Your task to perform on an android device: change text size in settings app Image 0: 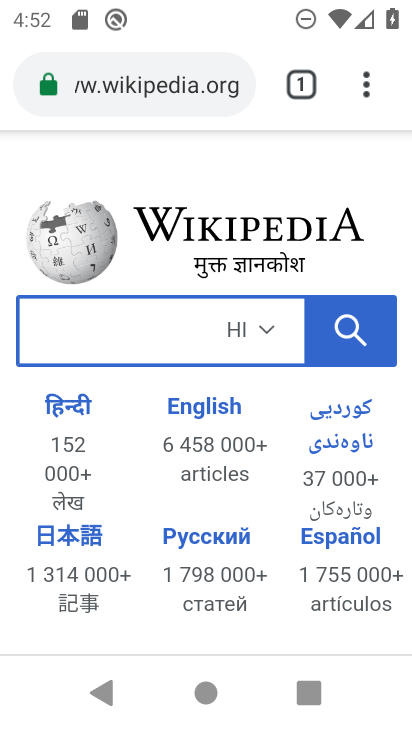
Step 0: press home button
Your task to perform on an android device: change text size in settings app Image 1: 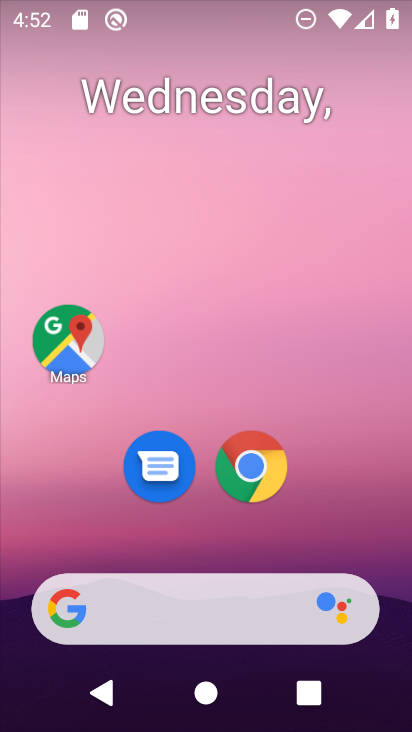
Step 1: drag from (391, 584) to (349, 144)
Your task to perform on an android device: change text size in settings app Image 2: 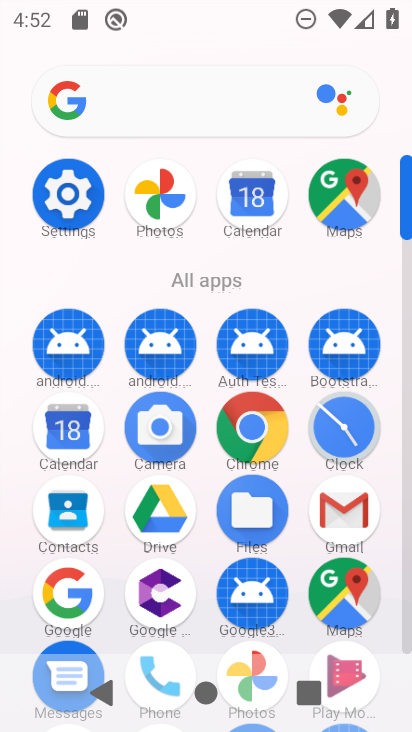
Step 2: click (406, 642)
Your task to perform on an android device: change text size in settings app Image 3: 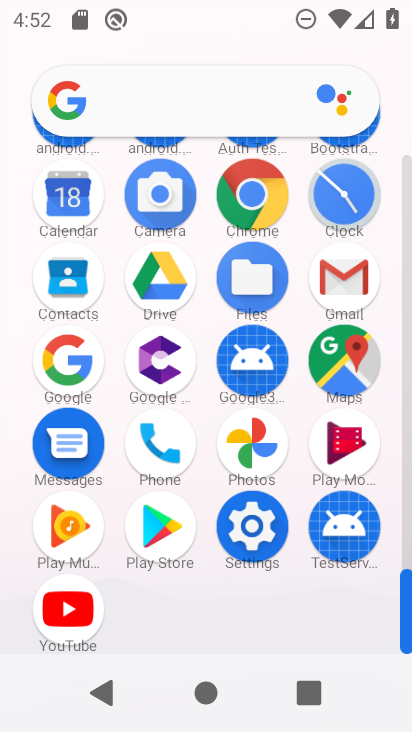
Step 3: click (250, 526)
Your task to perform on an android device: change text size in settings app Image 4: 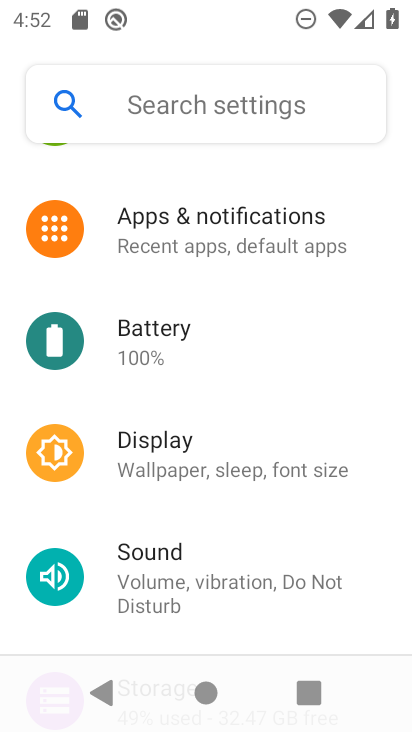
Step 4: click (169, 447)
Your task to perform on an android device: change text size in settings app Image 5: 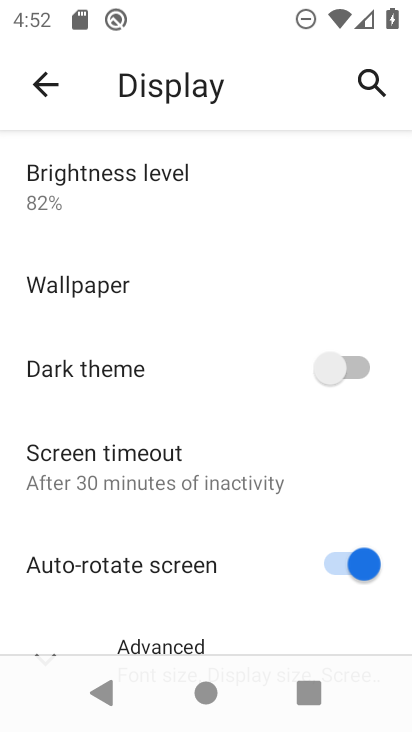
Step 5: drag from (265, 573) to (254, 236)
Your task to perform on an android device: change text size in settings app Image 6: 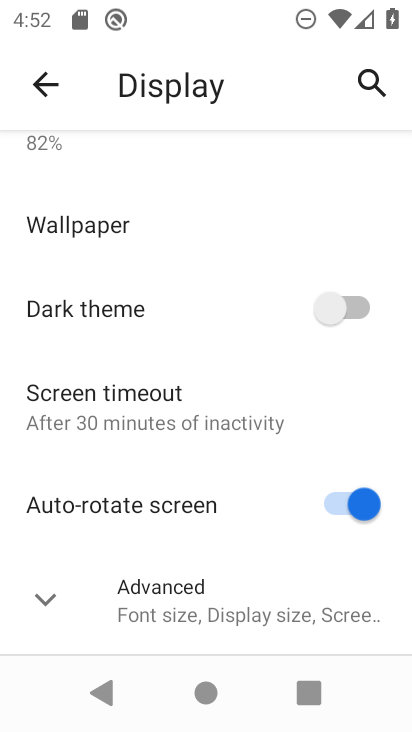
Step 6: click (41, 600)
Your task to perform on an android device: change text size in settings app Image 7: 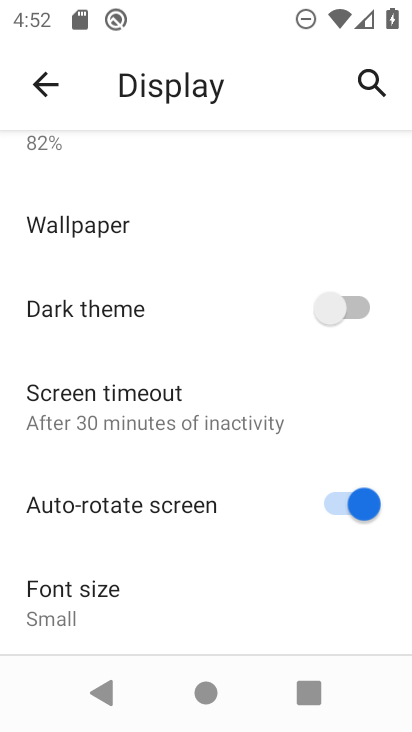
Step 7: drag from (189, 615) to (242, 358)
Your task to perform on an android device: change text size in settings app Image 8: 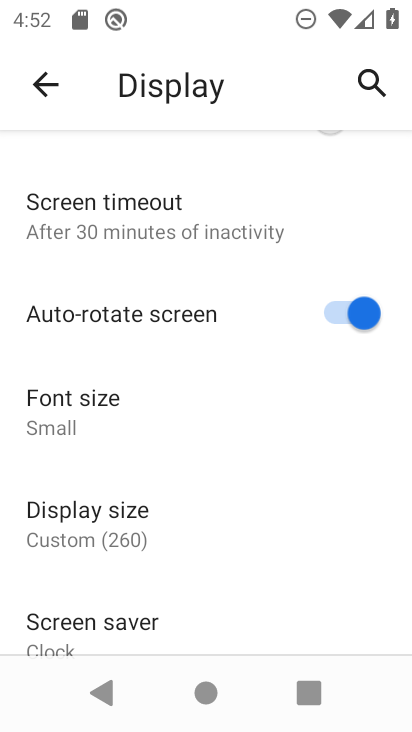
Step 8: click (80, 414)
Your task to perform on an android device: change text size in settings app Image 9: 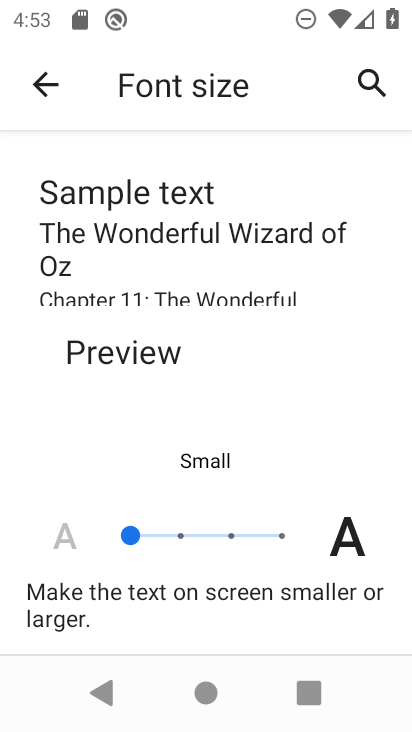
Step 9: click (187, 538)
Your task to perform on an android device: change text size in settings app Image 10: 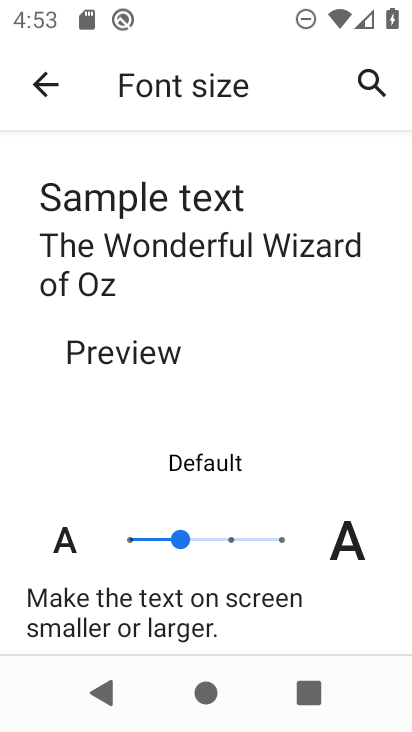
Step 10: task complete